Your task to perform on an android device: turn on the 24-hour format for clock Image 0: 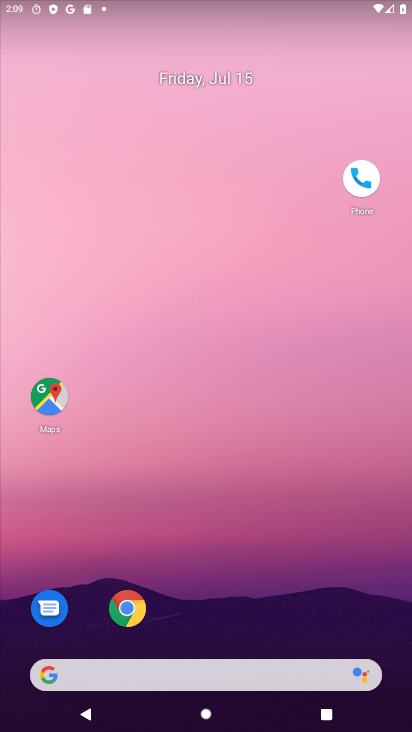
Step 0: drag from (185, 296) to (219, 42)
Your task to perform on an android device: turn on the 24-hour format for clock Image 1: 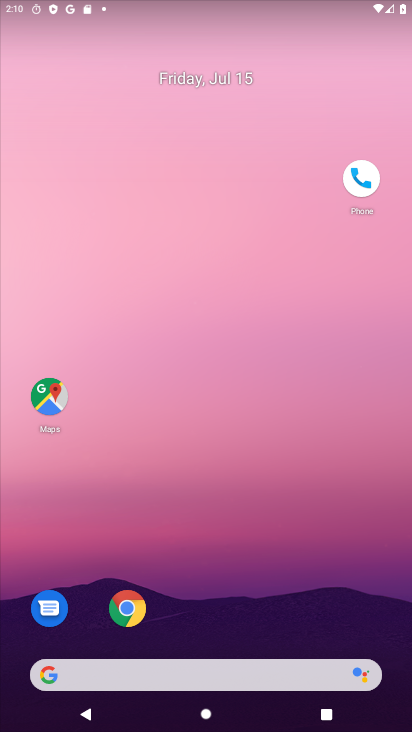
Step 1: drag from (197, 617) to (259, 139)
Your task to perform on an android device: turn on the 24-hour format for clock Image 2: 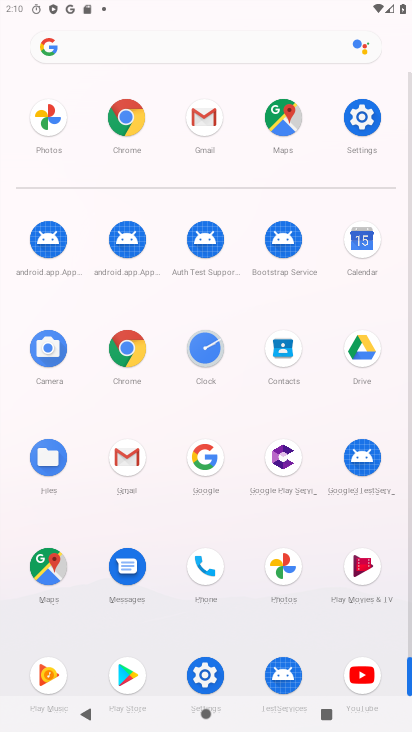
Step 2: drag from (152, 632) to (237, 200)
Your task to perform on an android device: turn on the 24-hour format for clock Image 3: 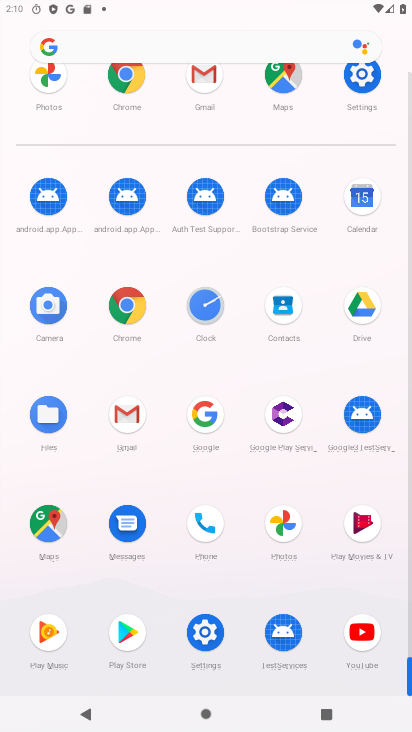
Step 3: click (198, 309)
Your task to perform on an android device: turn on the 24-hour format for clock Image 4: 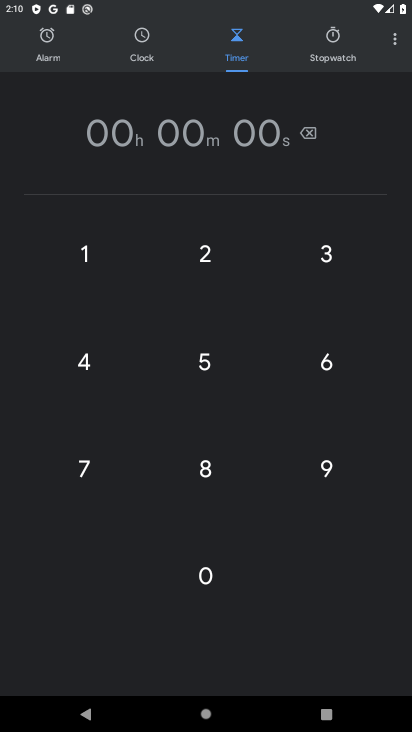
Step 4: click (393, 34)
Your task to perform on an android device: turn on the 24-hour format for clock Image 5: 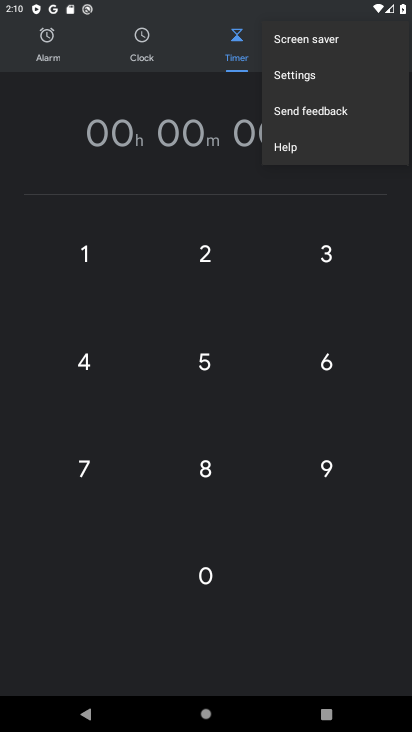
Step 5: click (306, 72)
Your task to perform on an android device: turn on the 24-hour format for clock Image 6: 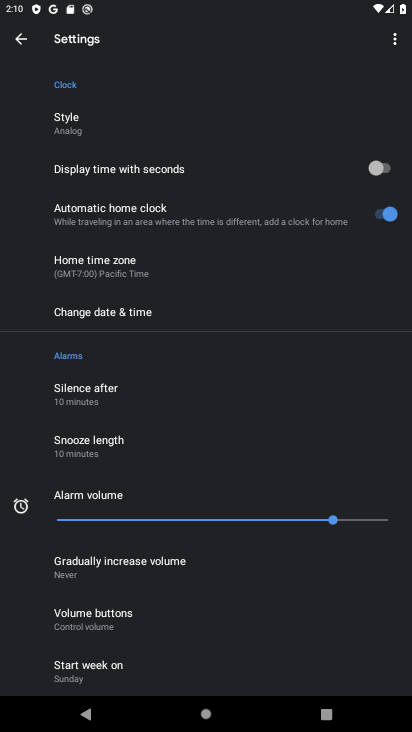
Step 6: drag from (193, 432) to (251, 164)
Your task to perform on an android device: turn on the 24-hour format for clock Image 7: 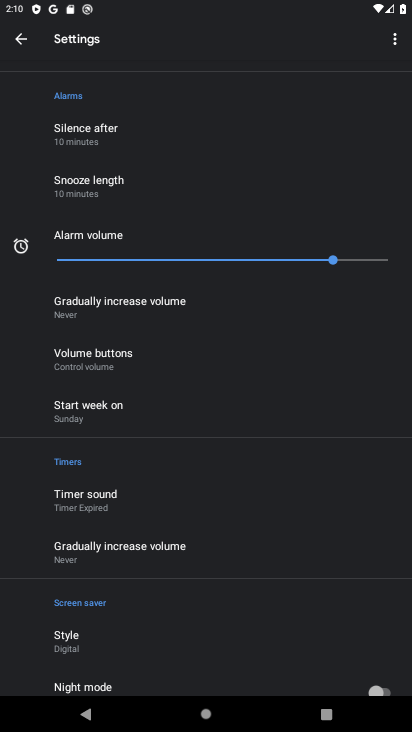
Step 7: drag from (178, 546) to (224, 217)
Your task to perform on an android device: turn on the 24-hour format for clock Image 8: 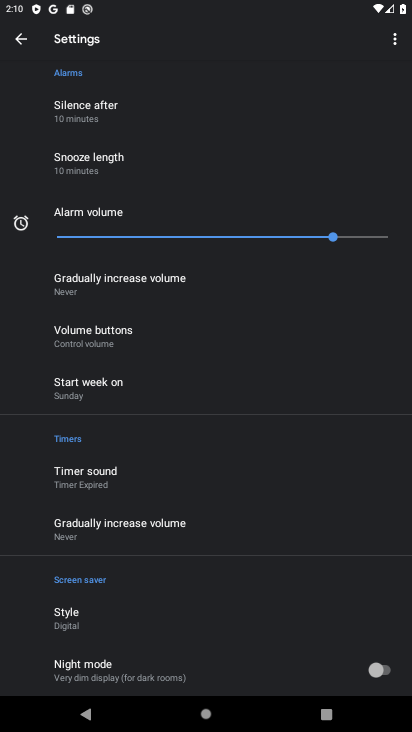
Step 8: drag from (163, 180) to (245, 668)
Your task to perform on an android device: turn on the 24-hour format for clock Image 9: 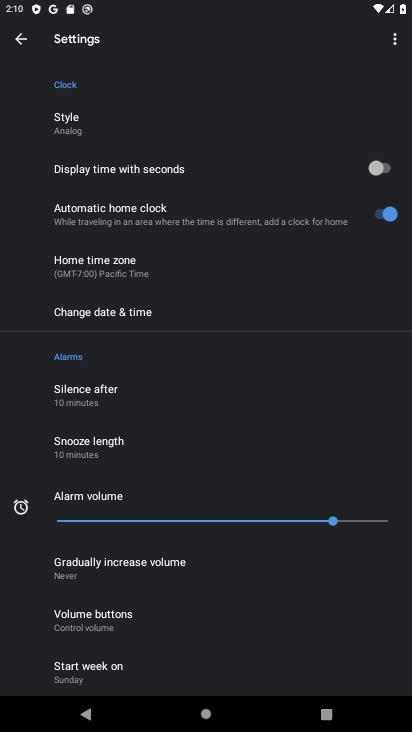
Step 9: click (149, 316)
Your task to perform on an android device: turn on the 24-hour format for clock Image 10: 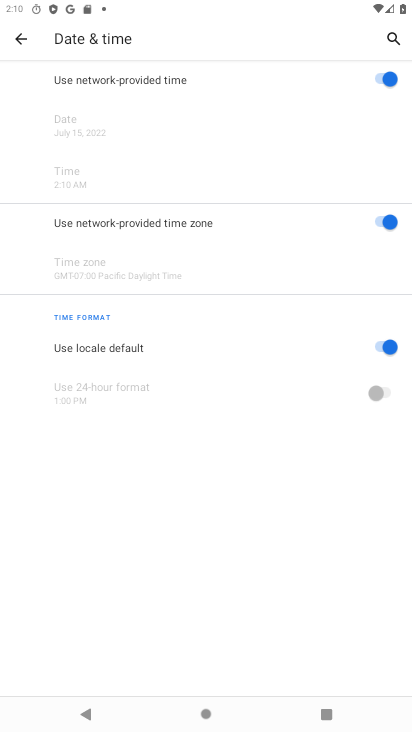
Step 10: drag from (191, 529) to (201, 189)
Your task to perform on an android device: turn on the 24-hour format for clock Image 11: 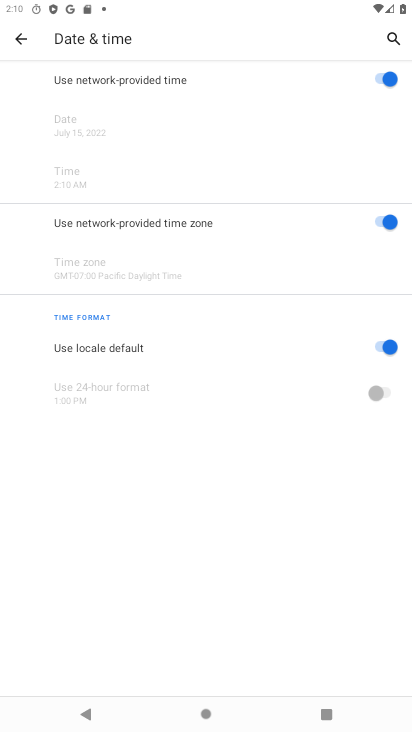
Step 11: click (365, 399)
Your task to perform on an android device: turn on the 24-hour format for clock Image 12: 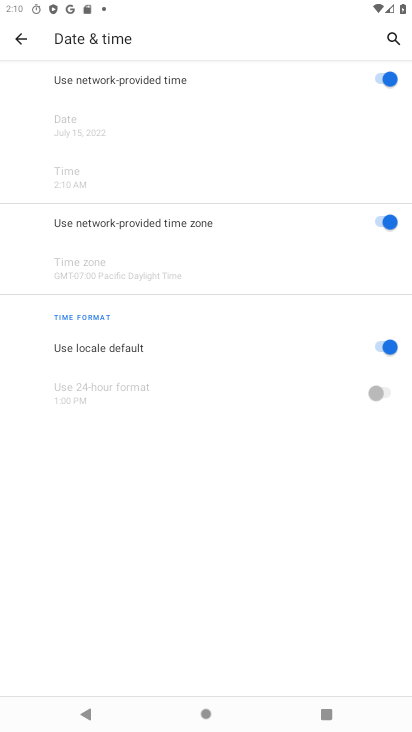
Step 12: click (384, 354)
Your task to perform on an android device: turn on the 24-hour format for clock Image 13: 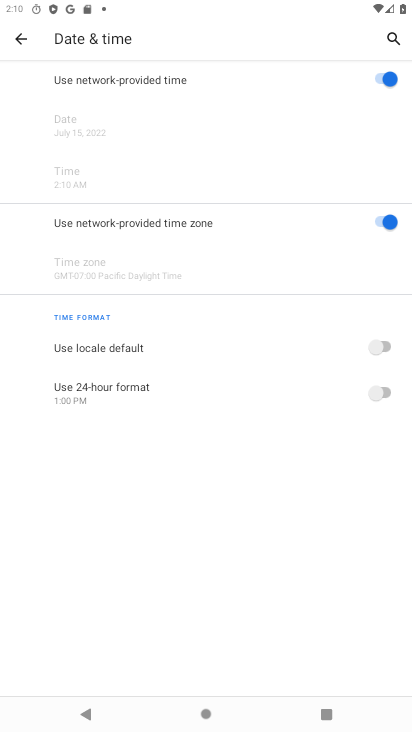
Step 13: click (375, 392)
Your task to perform on an android device: turn on the 24-hour format for clock Image 14: 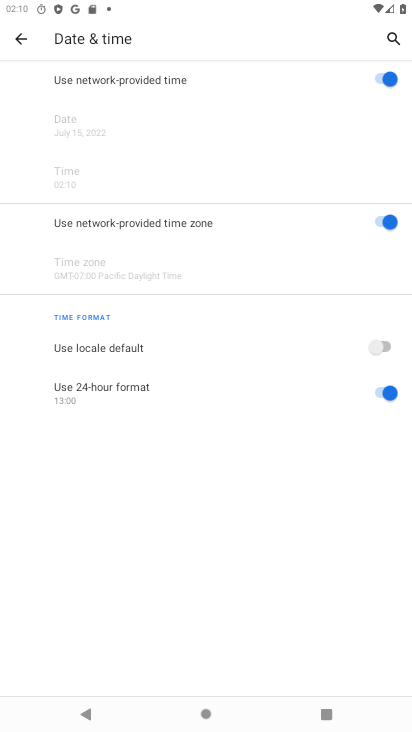
Step 14: task complete